Your task to perform on an android device: Open Chrome and go to settings Image 0: 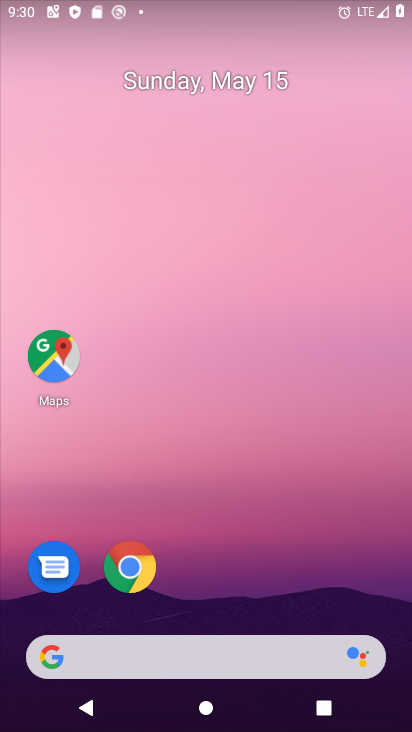
Step 0: click (137, 565)
Your task to perform on an android device: Open Chrome and go to settings Image 1: 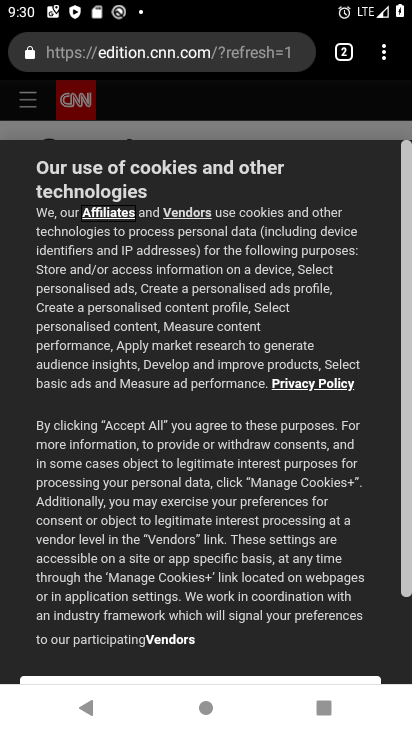
Step 1: click (378, 56)
Your task to perform on an android device: Open Chrome and go to settings Image 2: 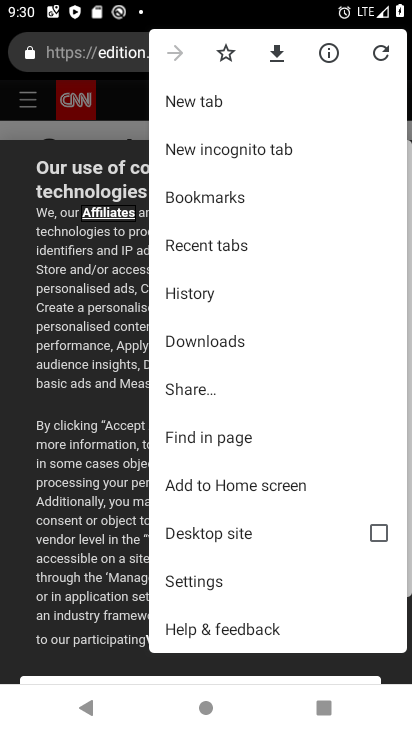
Step 2: click (280, 582)
Your task to perform on an android device: Open Chrome and go to settings Image 3: 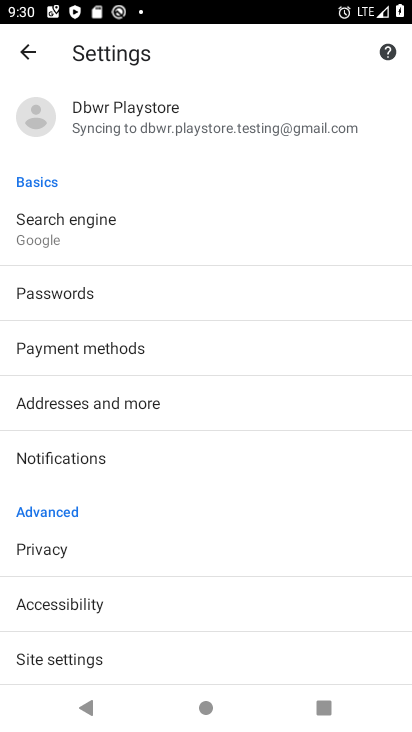
Step 3: task complete